Your task to perform on an android device: Show me popular videos on Youtube Image 0: 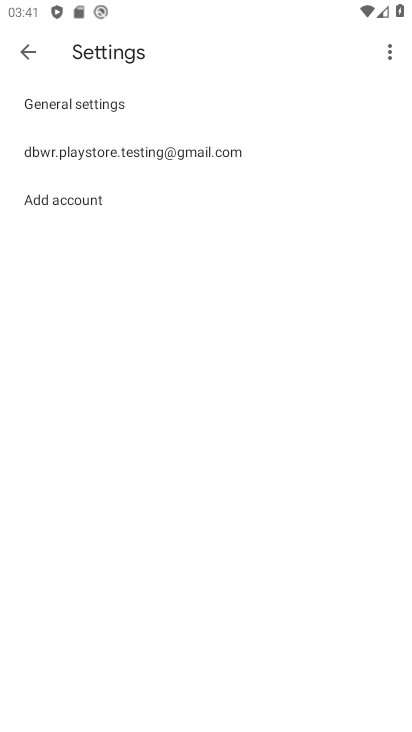
Step 0: press home button
Your task to perform on an android device: Show me popular videos on Youtube Image 1: 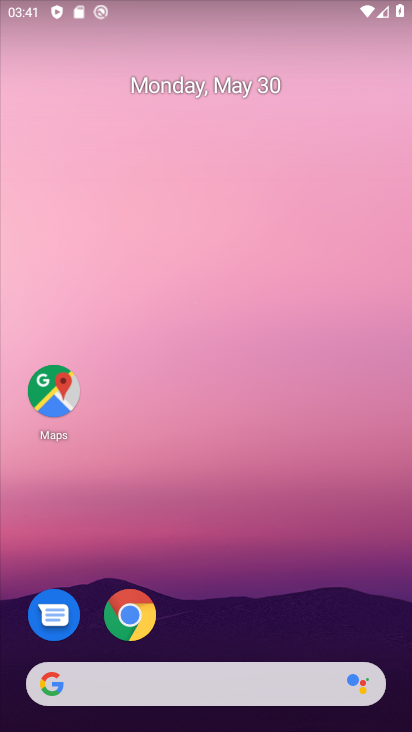
Step 1: drag from (279, 614) to (255, 121)
Your task to perform on an android device: Show me popular videos on Youtube Image 2: 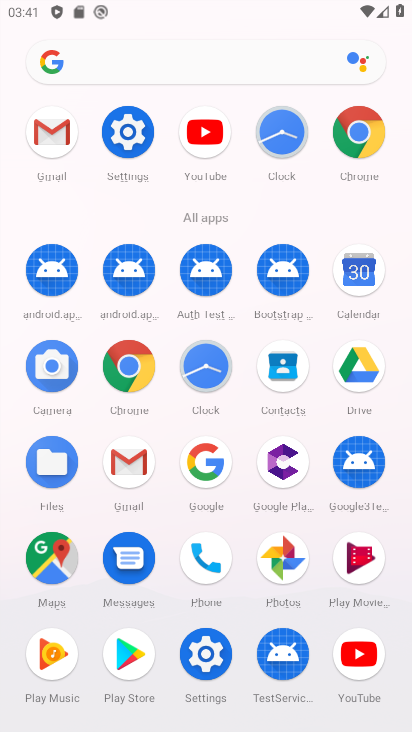
Step 2: click (353, 653)
Your task to perform on an android device: Show me popular videos on Youtube Image 3: 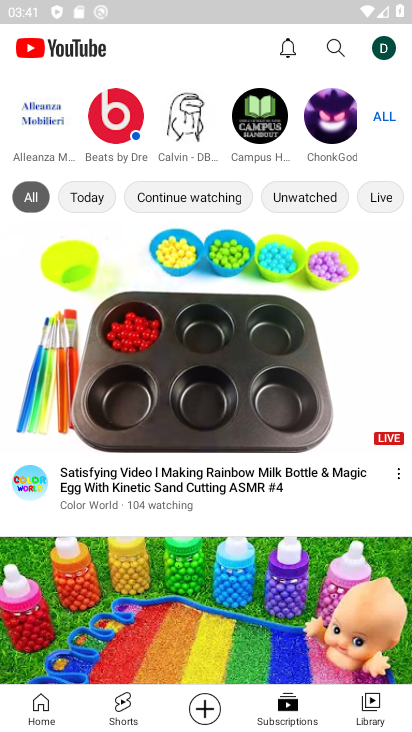
Step 3: click (338, 46)
Your task to perform on an android device: Show me popular videos on Youtube Image 4: 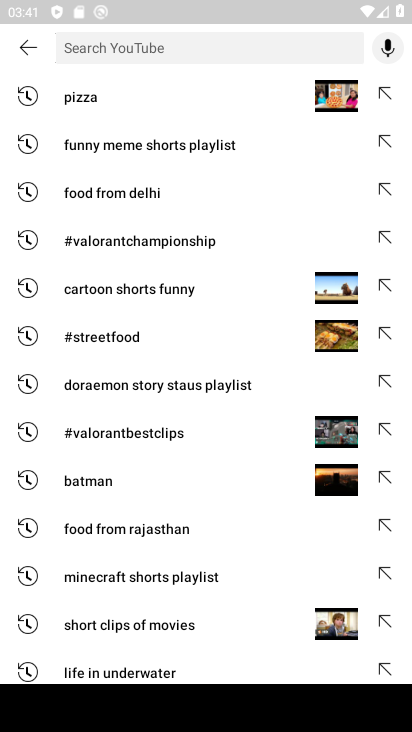
Step 4: type "popular videos"
Your task to perform on an android device: Show me popular videos on Youtube Image 5: 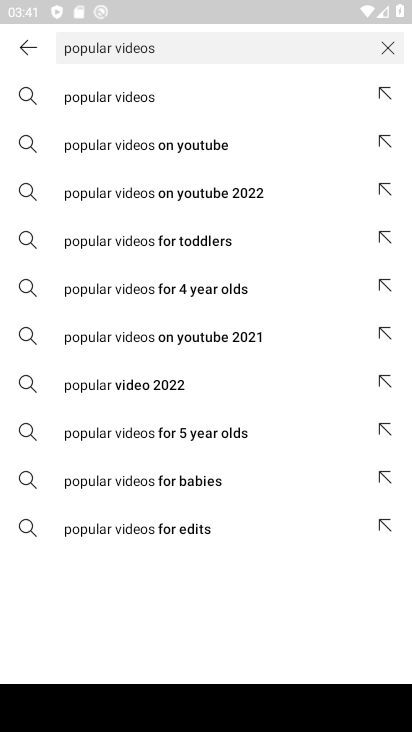
Step 5: click (162, 140)
Your task to perform on an android device: Show me popular videos on Youtube Image 6: 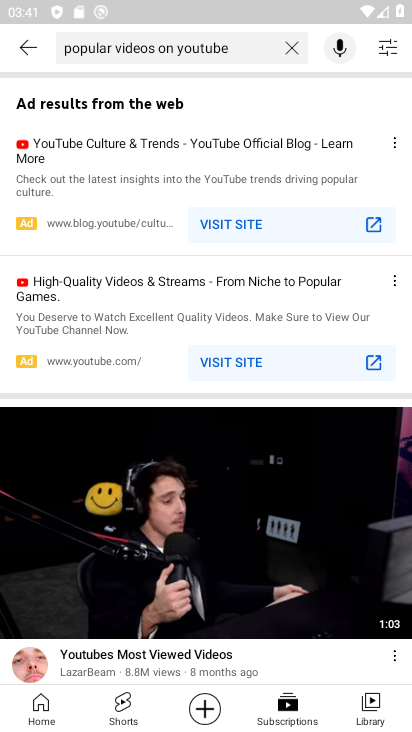
Step 6: task complete